Your task to perform on an android device: turn pop-ups on in chrome Image 0: 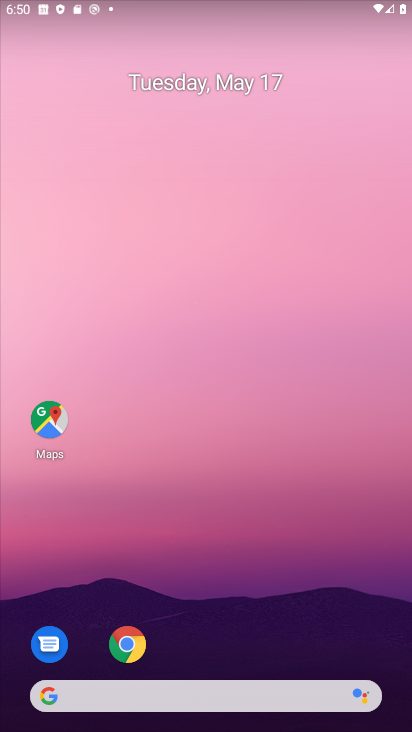
Step 0: drag from (356, 595) to (305, 152)
Your task to perform on an android device: turn pop-ups on in chrome Image 1: 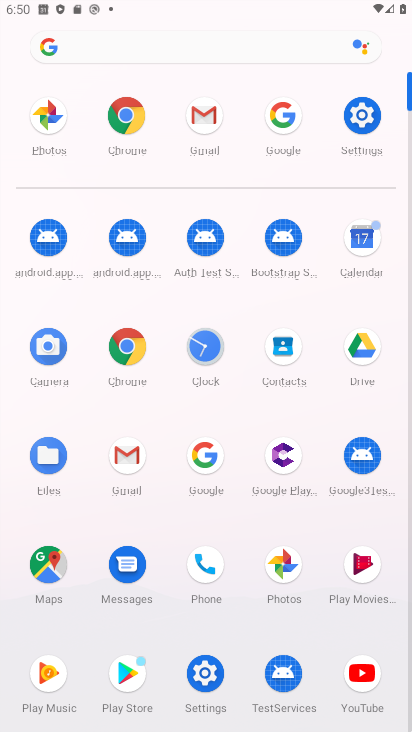
Step 1: click (121, 353)
Your task to perform on an android device: turn pop-ups on in chrome Image 2: 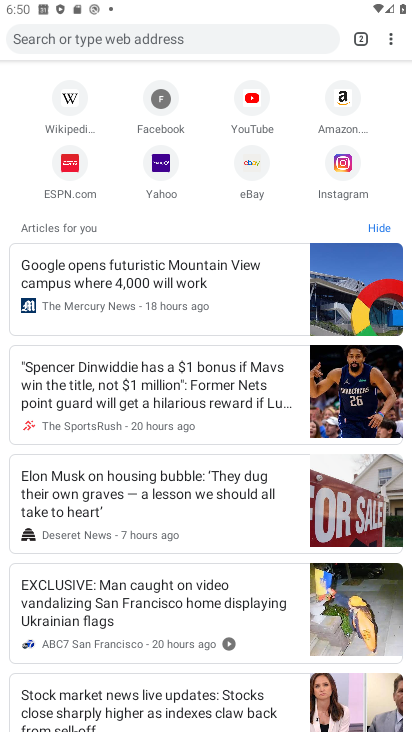
Step 2: click (390, 37)
Your task to perform on an android device: turn pop-ups on in chrome Image 3: 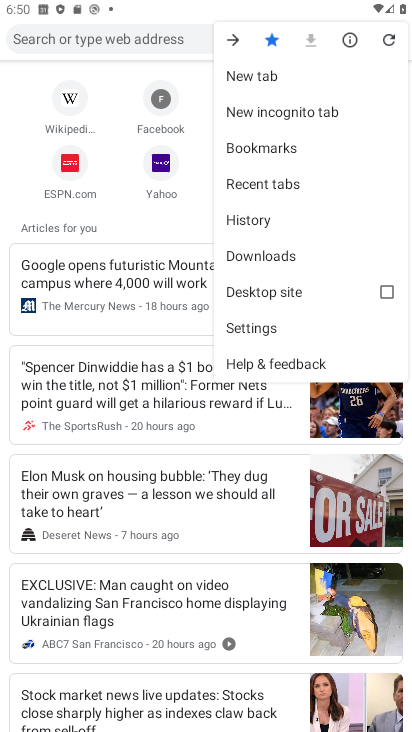
Step 3: click (257, 330)
Your task to perform on an android device: turn pop-ups on in chrome Image 4: 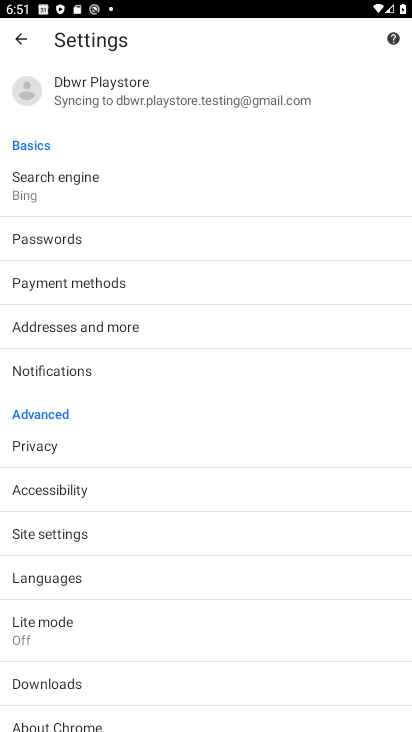
Step 4: click (142, 545)
Your task to perform on an android device: turn pop-ups on in chrome Image 5: 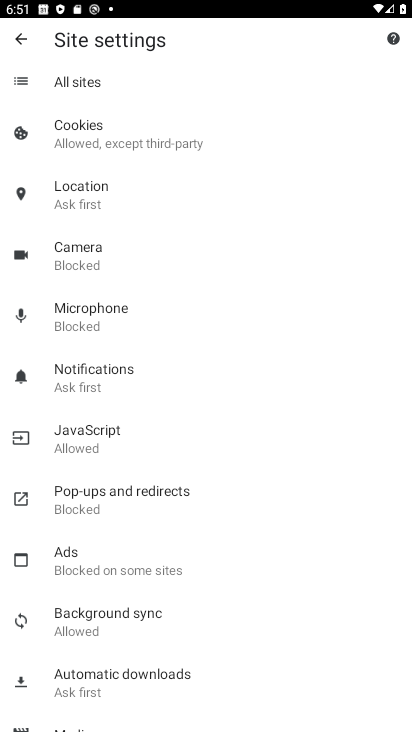
Step 5: click (143, 509)
Your task to perform on an android device: turn pop-ups on in chrome Image 6: 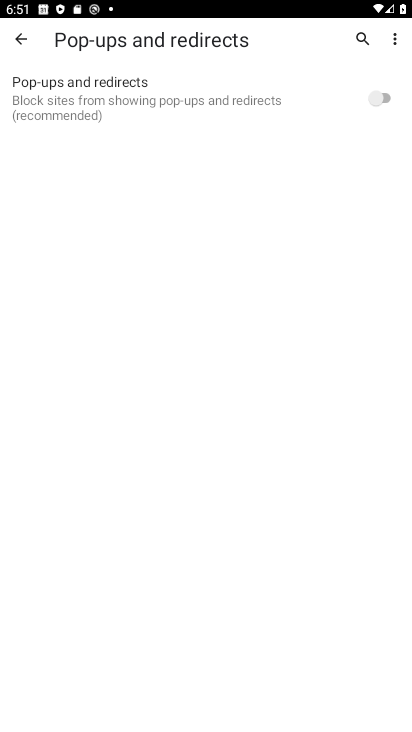
Step 6: click (380, 95)
Your task to perform on an android device: turn pop-ups on in chrome Image 7: 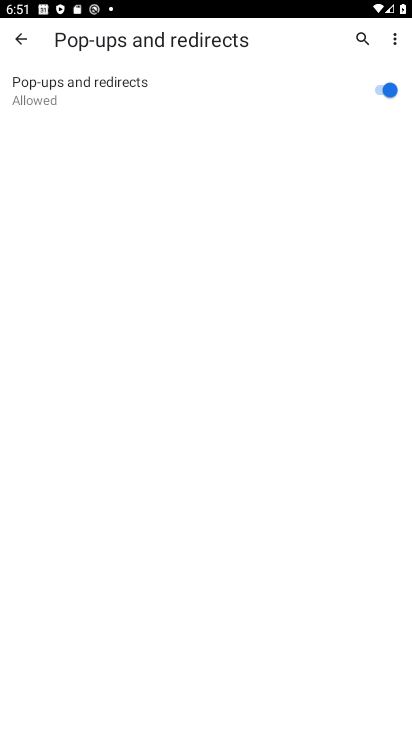
Step 7: task complete